Your task to perform on an android device: toggle pop-ups in chrome Image 0: 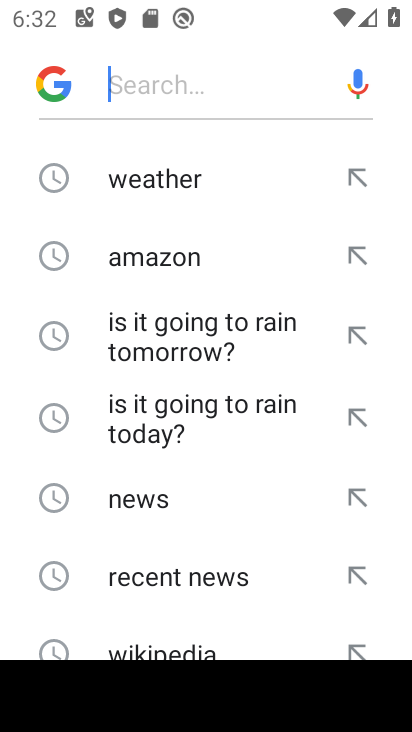
Step 0: press home button
Your task to perform on an android device: toggle pop-ups in chrome Image 1: 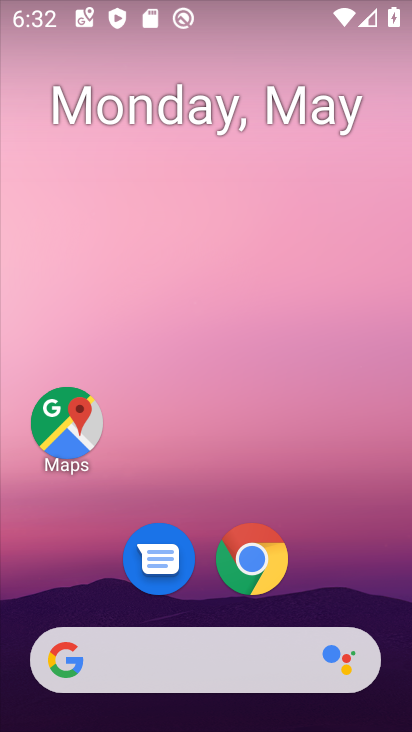
Step 1: drag from (398, 648) to (351, 2)
Your task to perform on an android device: toggle pop-ups in chrome Image 2: 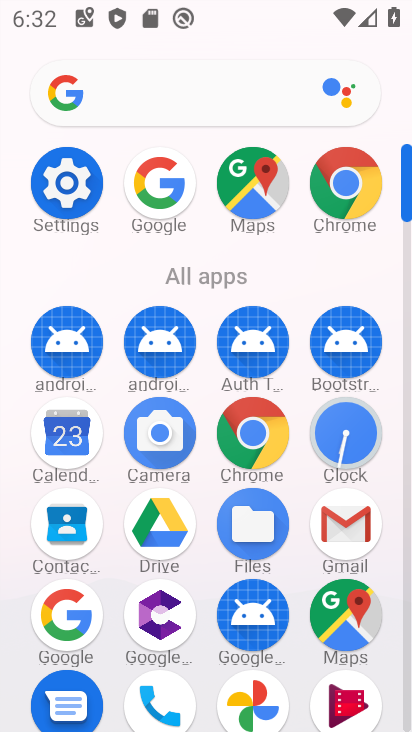
Step 2: click (335, 202)
Your task to perform on an android device: toggle pop-ups in chrome Image 3: 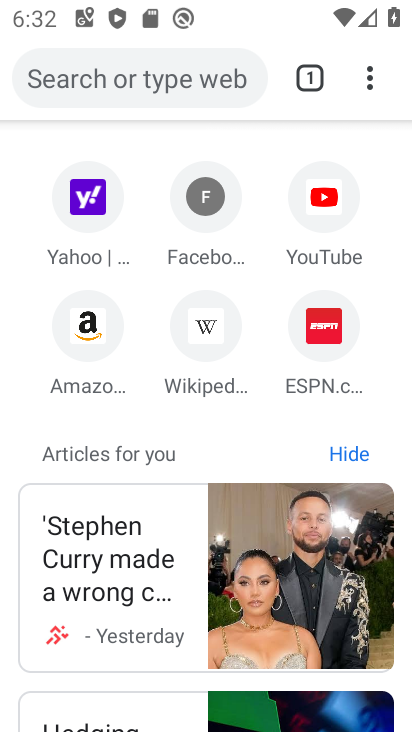
Step 3: click (364, 79)
Your task to perform on an android device: toggle pop-ups in chrome Image 4: 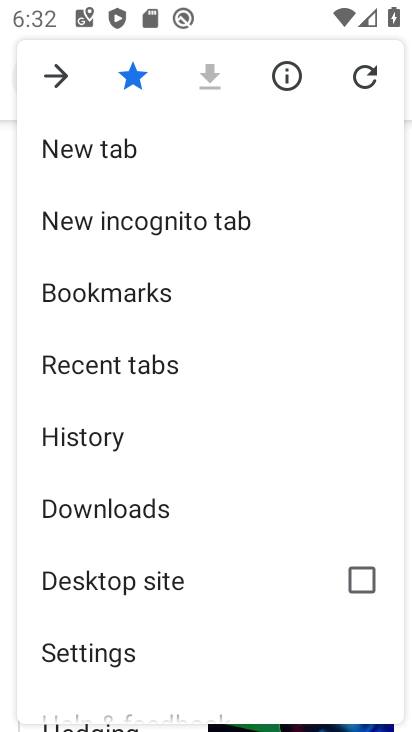
Step 4: click (171, 650)
Your task to perform on an android device: toggle pop-ups in chrome Image 5: 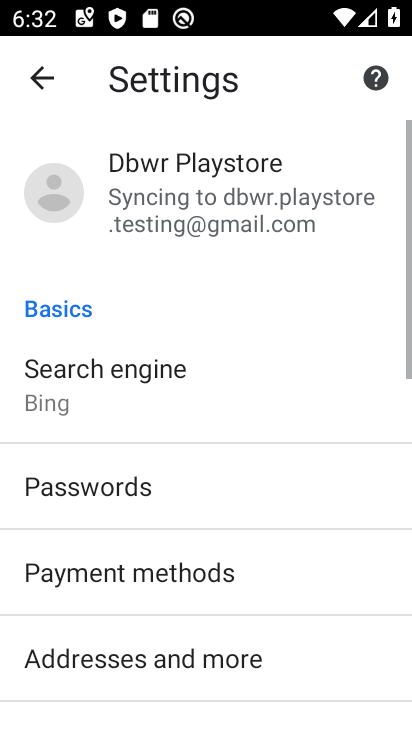
Step 5: drag from (171, 650) to (281, 100)
Your task to perform on an android device: toggle pop-ups in chrome Image 6: 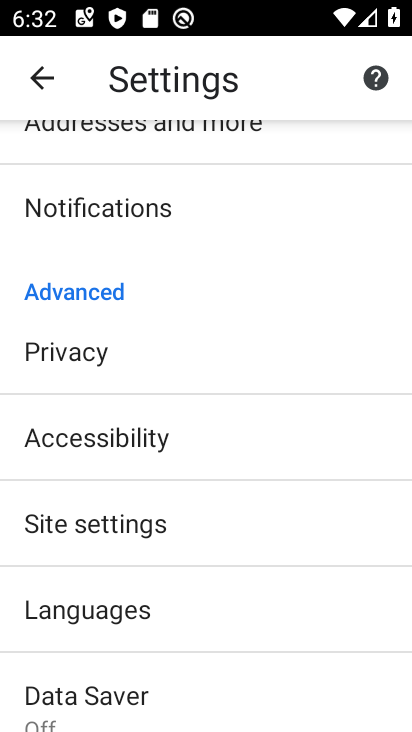
Step 6: click (195, 518)
Your task to perform on an android device: toggle pop-ups in chrome Image 7: 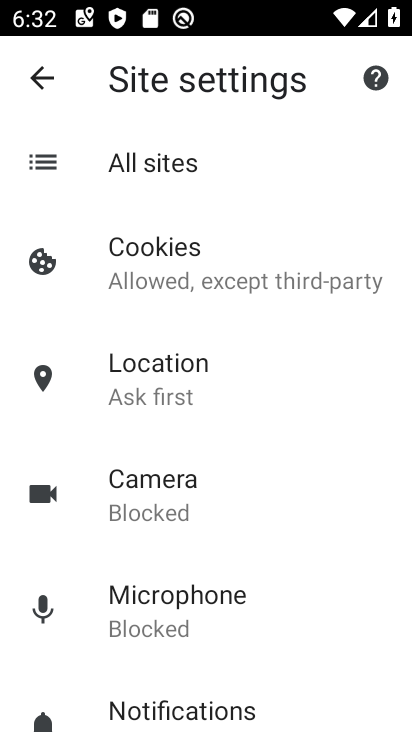
Step 7: drag from (250, 659) to (276, 218)
Your task to perform on an android device: toggle pop-ups in chrome Image 8: 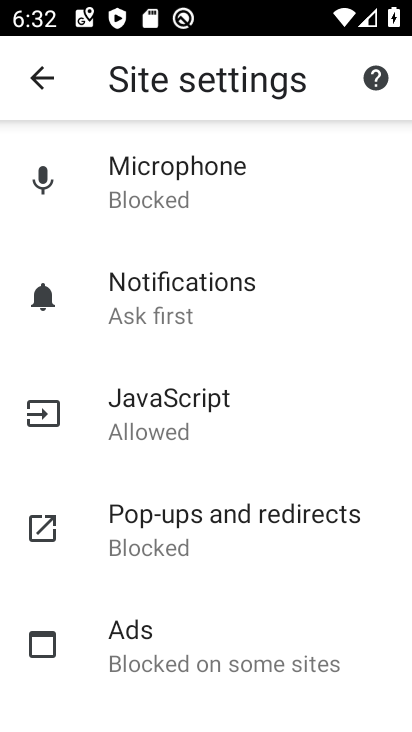
Step 8: click (207, 533)
Your task to perform on an android device: toggle pop-ups in chrome Image 9: 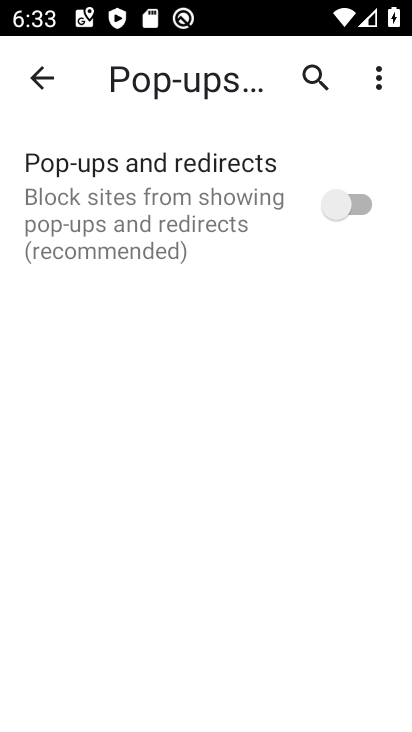
Step 9: click (317, 209)
Your task to perform on an android device: toggle pop-ups in chrome Image 10: 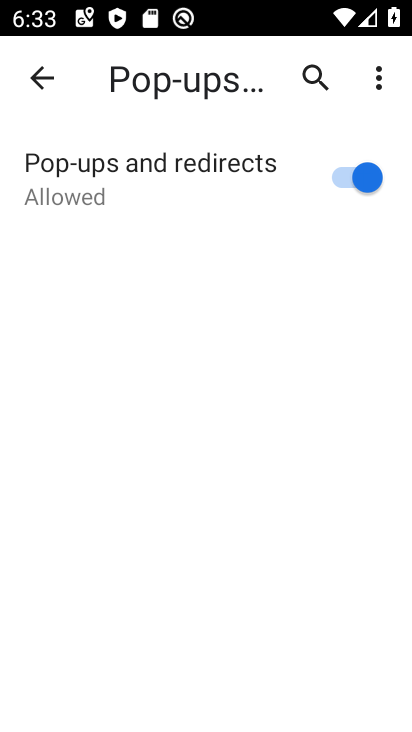
Step 10: task complete